Your task to perform on an android device: Open settings Image 0: 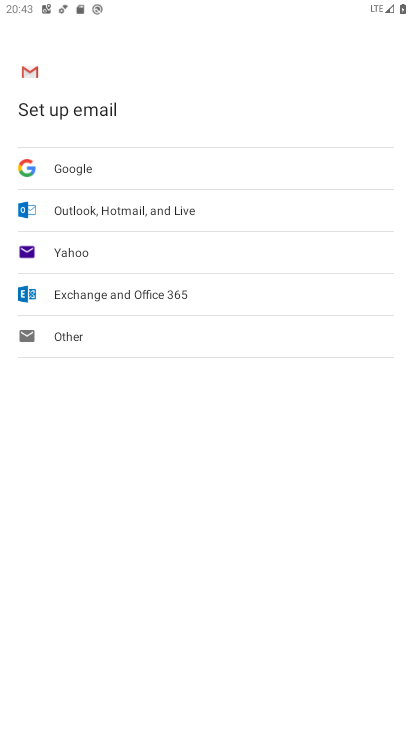
Step 0: press home button
Your task to perform on an android device: Open settings Image 1: 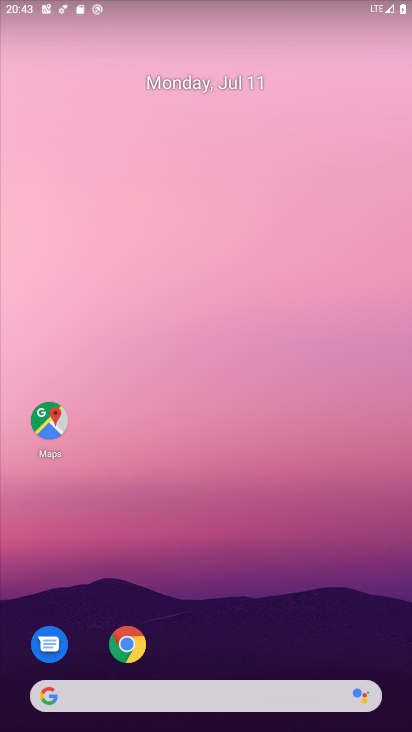
Step 1: drag from (232, 615) to (230, 337)
Your task to perform on an android device: Open settings Image 2: 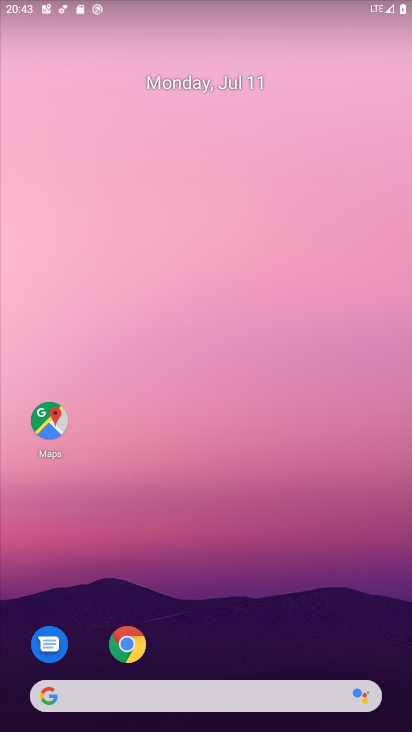
Step 2: drag from (217, 652) to (149, 168)
Your task to perform on an android device: Open settings Image 3: 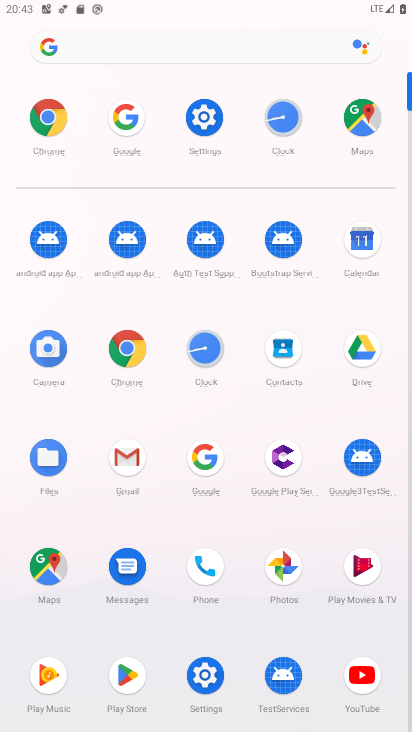
Step 3: click (198, 109)
Your task to perform on an android device: Open settings Image 4: 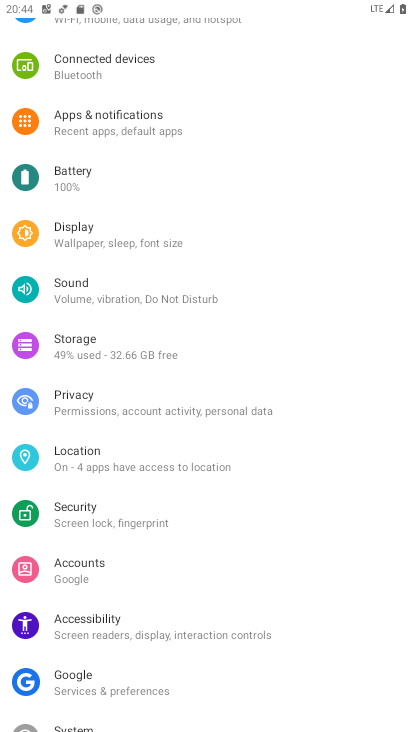
Step 4: task complete